Your task to perform on an android device: turn pop-ups on in chrome Image 0: 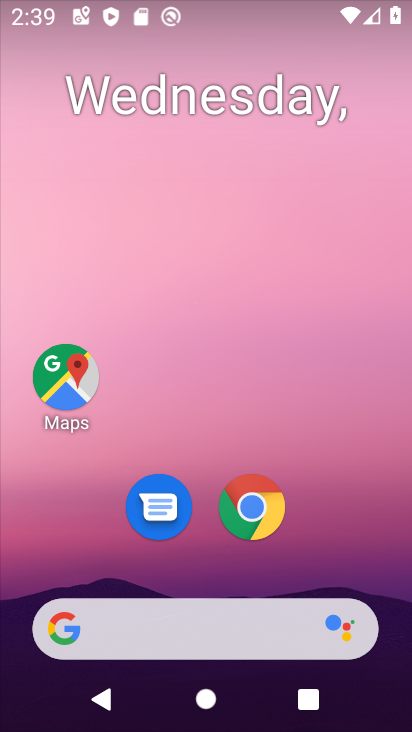
Step 0: click (248, 507)
Your task to perform on an android device: turn pop-ups on in chrome Image 1: 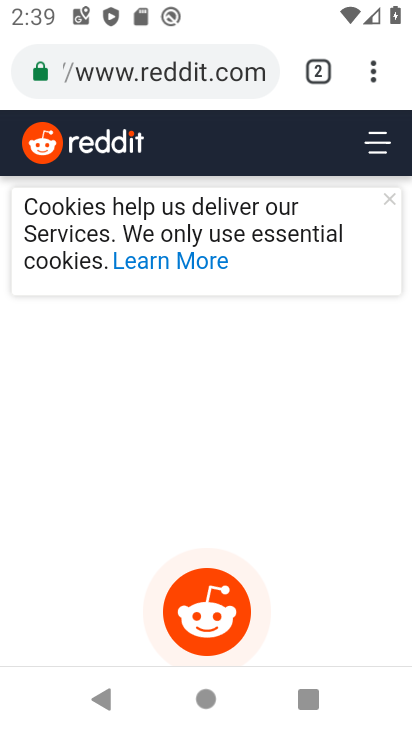
Step 1: click (372, 78)
Your task to perform on an android device: turn pop-ups on in chrome Image 2: 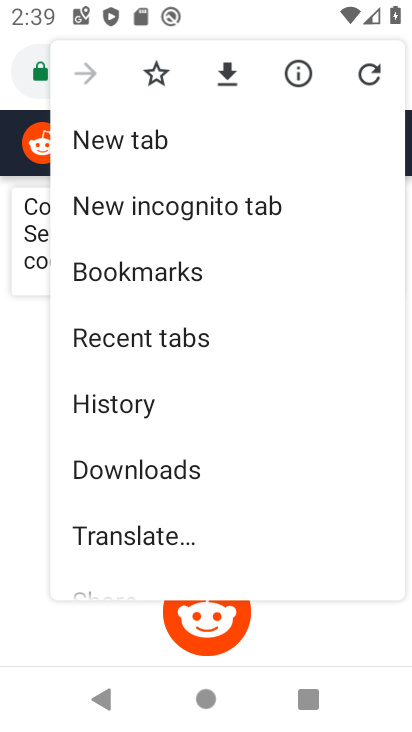
Step 2: drag from (286, 518) to (268, 52)
Your task to perform on an android device: turn pop-ups on in chrome Image 3: 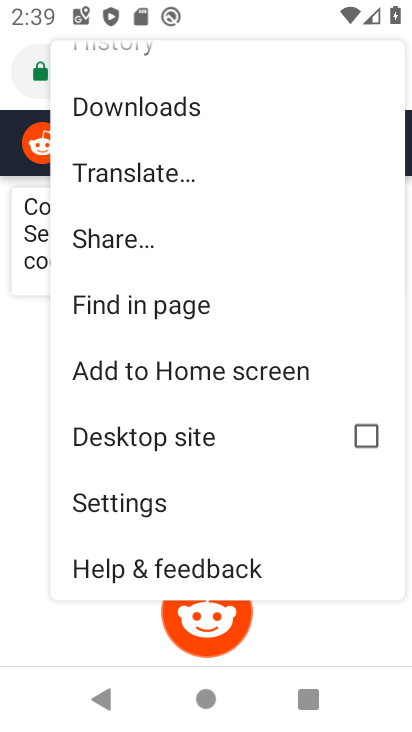
Step 3: click (192, 512)
Your task to perform on an android device: turn pop-ups on in chrome Image 4: 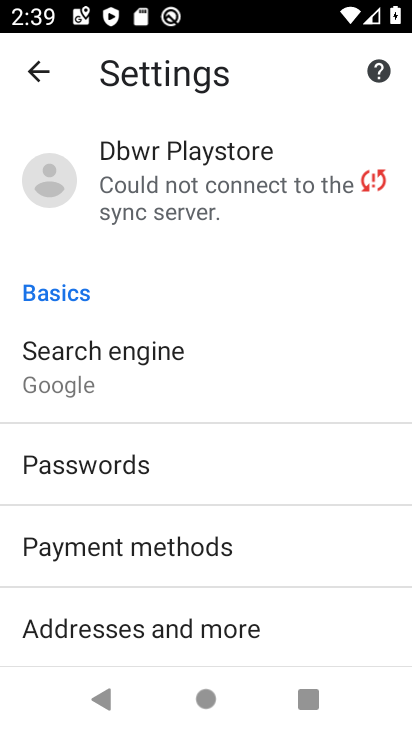
Step 4: drag from (273, 605) to (308, 136)
Your task to perform on an android device: turn pop-ups on in chrome Image 5: 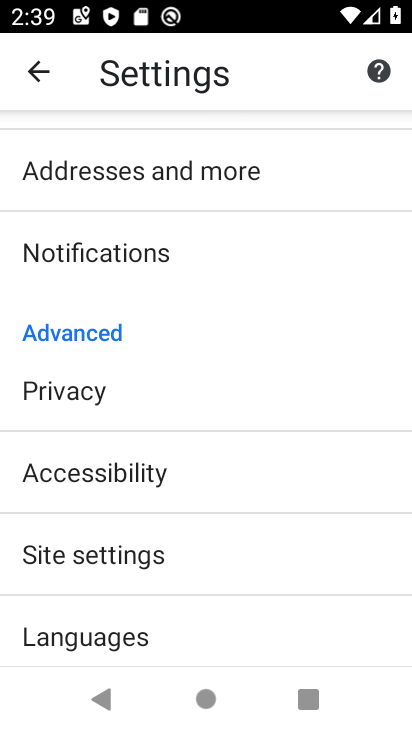
Step 5: click (176, 557)
Your task to perform on an android device: turn pop-ups on in chrome Image 6: 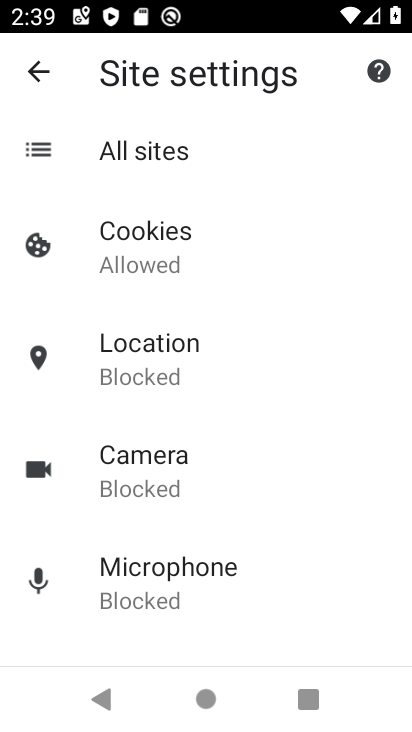
Step 6: drag from (250, 484) to (293, 111)
Your task to perform on an android device: turn pop-ups on in chrome Image 7: 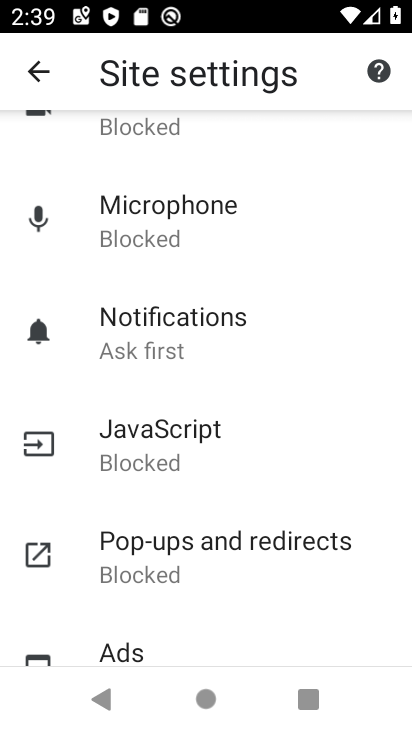
Step 7: click (222, 543)
Your task to perform on an android device: turn pop-ups on in chrome Image 8: 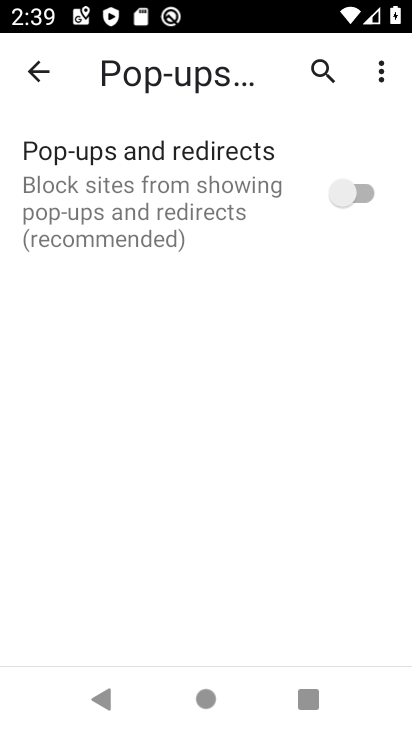
Step 8: click (338, 201)
Your task to perform on an android device: turn pop-ups on in chrome Image 9: 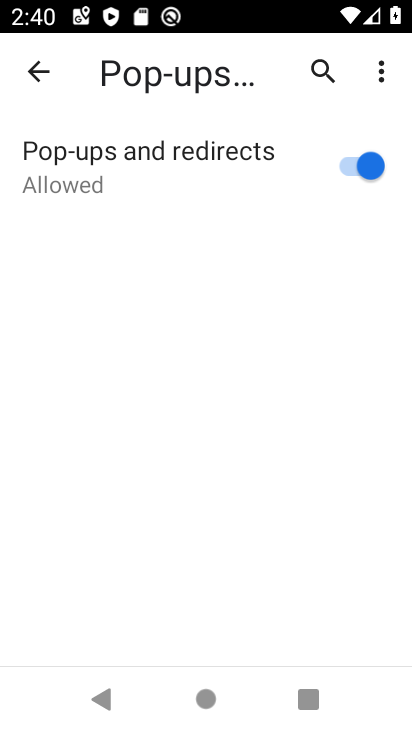
Step 9: task complete